Your task to perform on an android device: Open Yahoo.com Image 0: 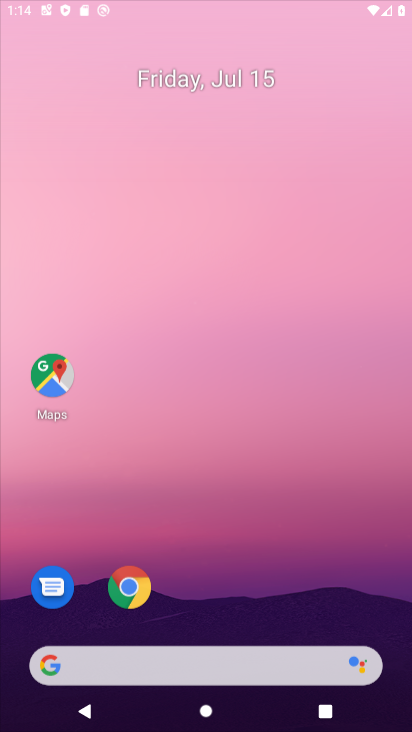
Step 0: click (127, 585)
Your task to perform on an android device: Open Yahoo.com Image 1: 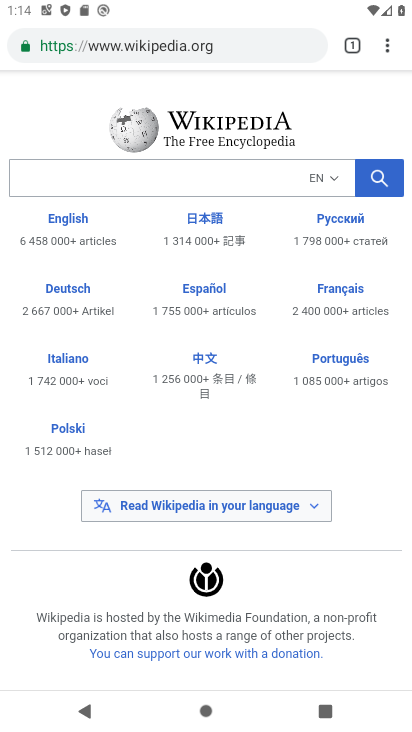
Step 1: click (245, 53)
Your task to perform on an android device: Open Yahoo.com Image 2: 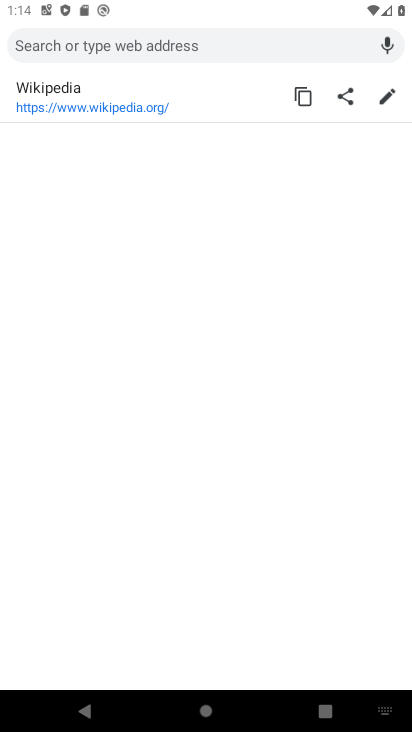
Step 2: type "Yahoo.com"
Your task to perform on an android device: Open Yahoo.com Image 3: 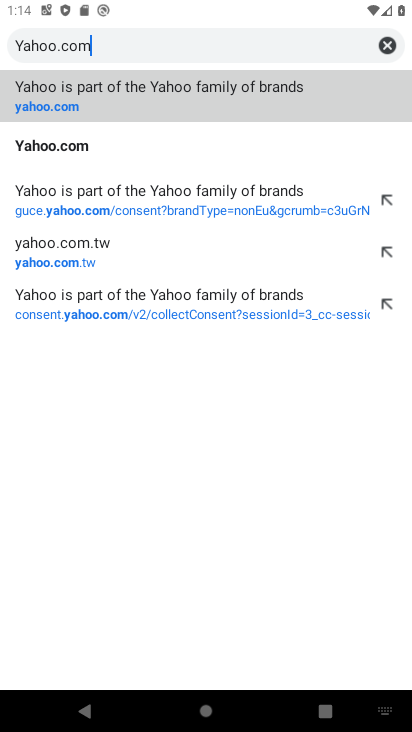
Step 3: click (86, 77)
Your task to perform on an android device: Open Yahoo.com Image 4: 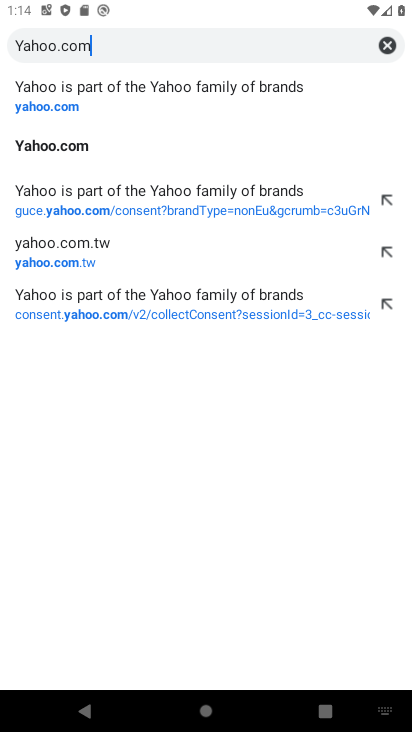
Step 4: click (91, 92)
Your task to perform on an android device: Open Yahoo.com Image 5: 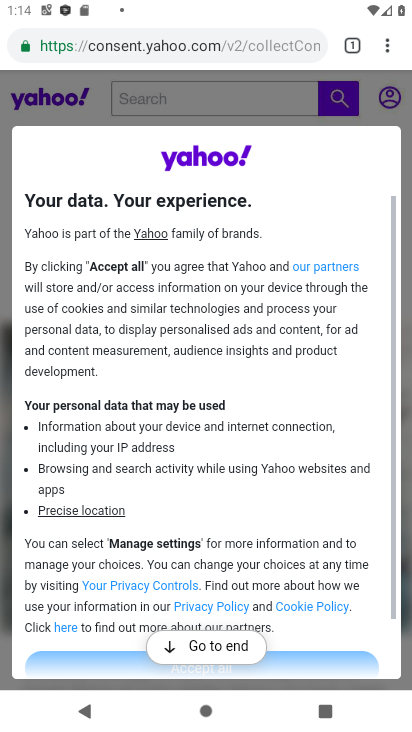
Step 5: click (186, 642)
Your task to perform on an android device: Open Yahoo.com Image 6: 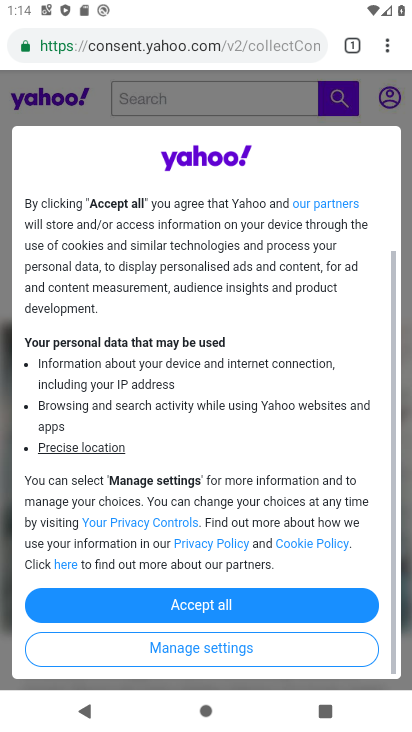
Step 6: click (191, 610)
Your task to perform on an android device: Open Yahoo.com Image 7: 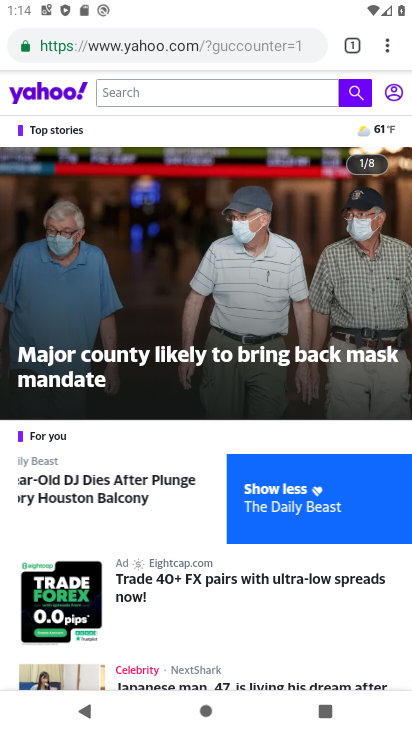
Step 7: task complete